Your task to perform on an android device: allow cookies in the chrome app Image 0: 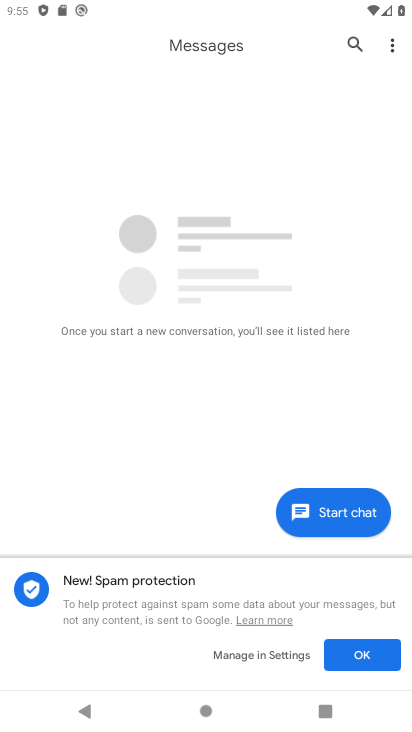
Step 0: press home button
Your task to perform on an android device: allow cookies in the chrome app Image 1: 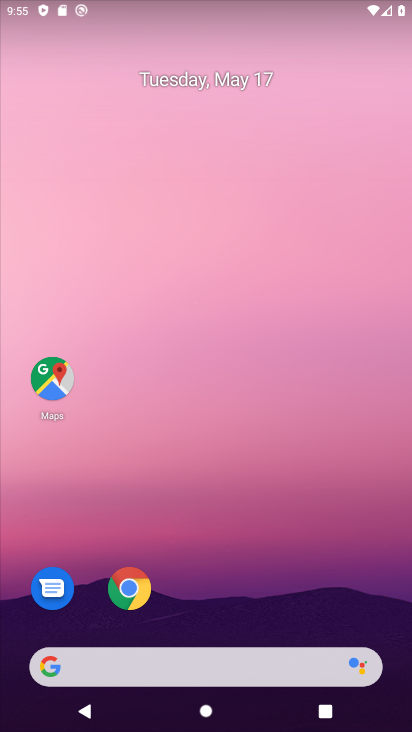
Step 1: click (126, 590)
Your task to perform on an android device: allow cookies in the chrome app Image 2: 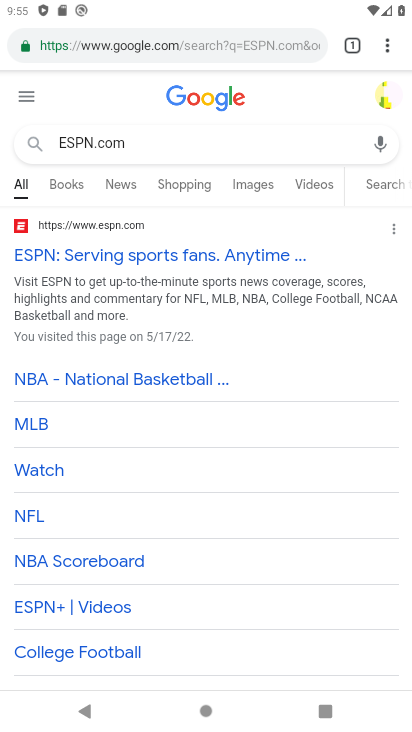
Step 2: click (387, 51)
Your task to perform on an android device: allow cookies in the chrome app Image 3: 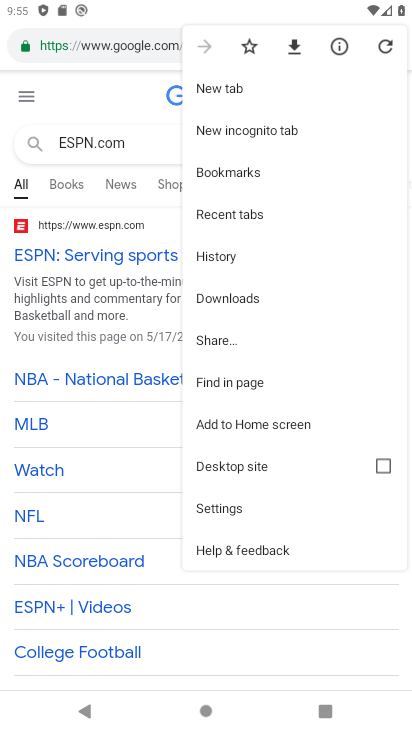
Step 3: click (216, 511)
Your task to perform on an android device: allow cookies in the chrome app Image 4: 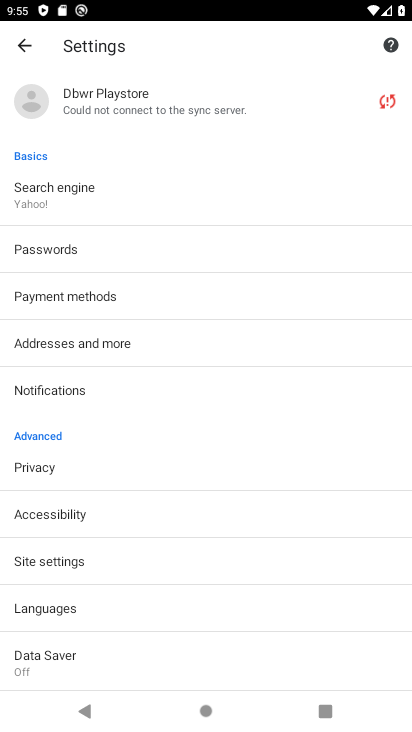
Step 4: drag from (77, 628) to (74, 539)
Your task to perform on an android device: allow cookies in the chrome app Image 5: 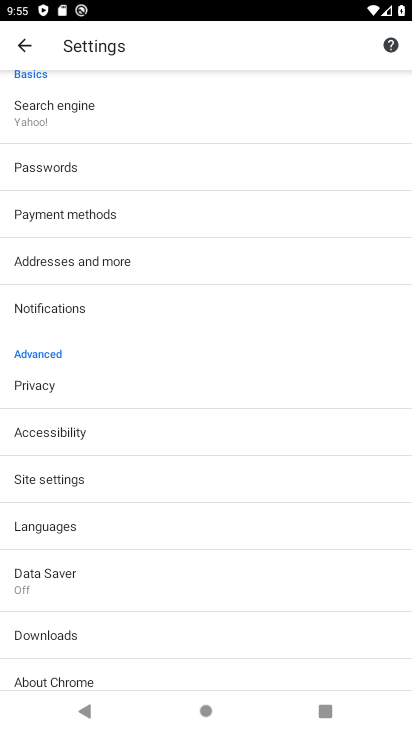
Step 5: click (66, 477)
Your task to perform on an android device: allow cookies in the chrome app Image 6: 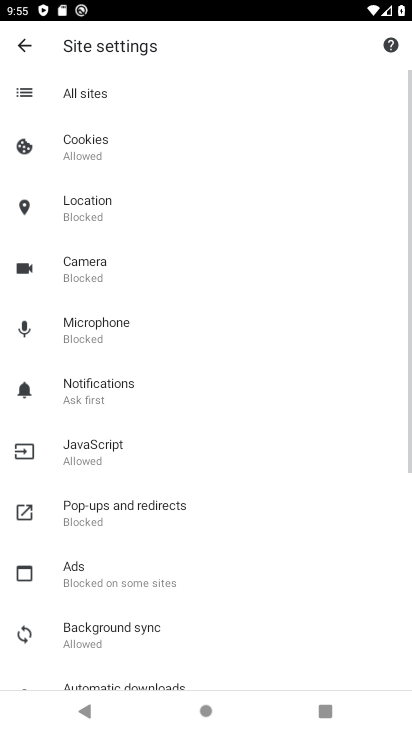
Step 6: click (92, 145)
Your task to perform on an android device: allow cookies in the chrome app Image 7: 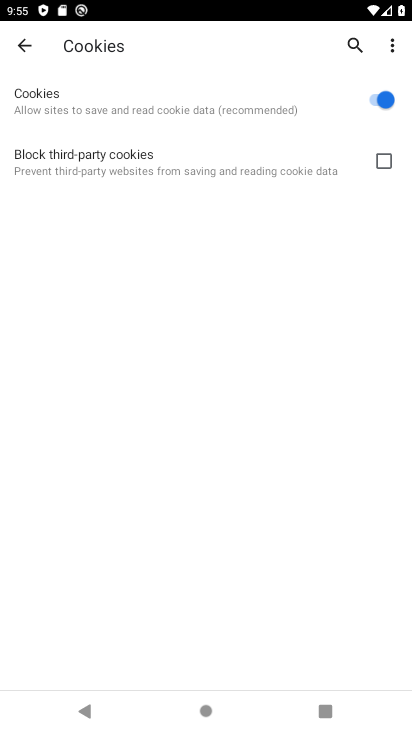
Step 7: task complete